Your task to perform on an android device: Open Amazon Image 0: 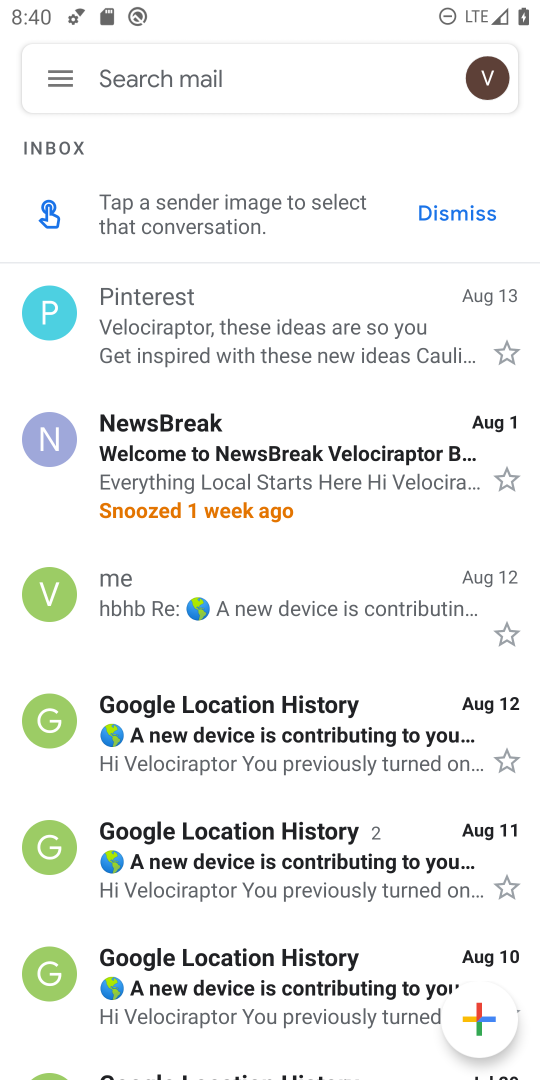
Step 0: press home button
Your task to perform on an android device: Open Amazon Image 1: 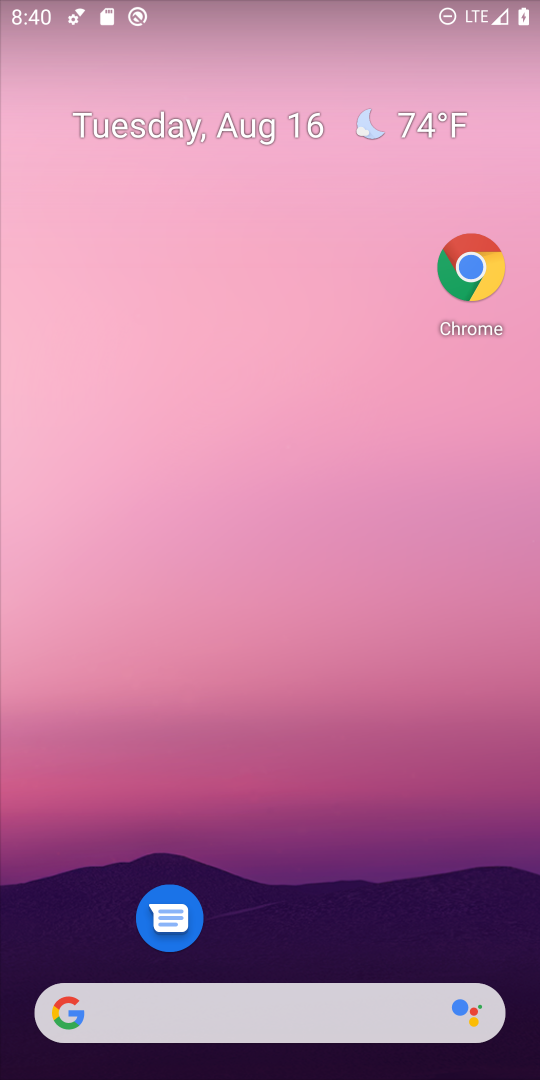
Step 1: drag from (412, 895) to (292, 182)
Your task to perform on an android device: Open Amazon Image 2: 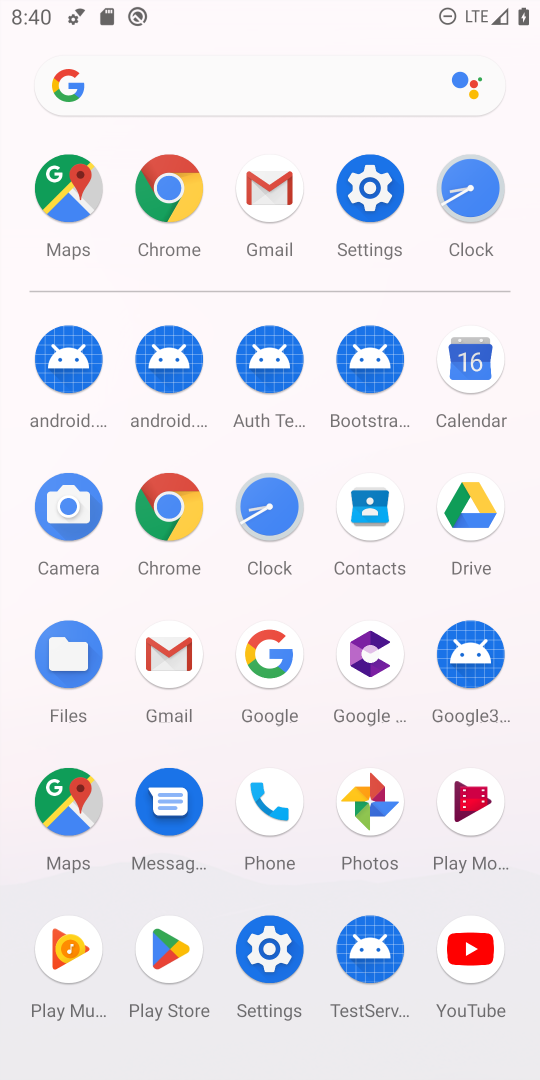
Step 2: click (161, 516)
Your task to perform on an android device: Open Amazon Image 3: 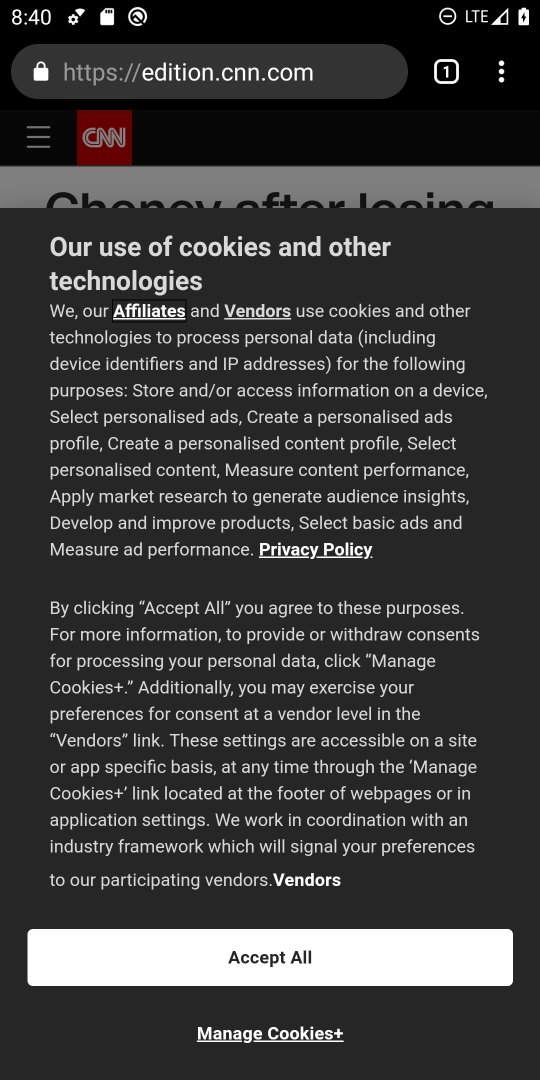
Step 3: click (291, 70)
Your task to perform on an android device: Open Amazon Image 4: 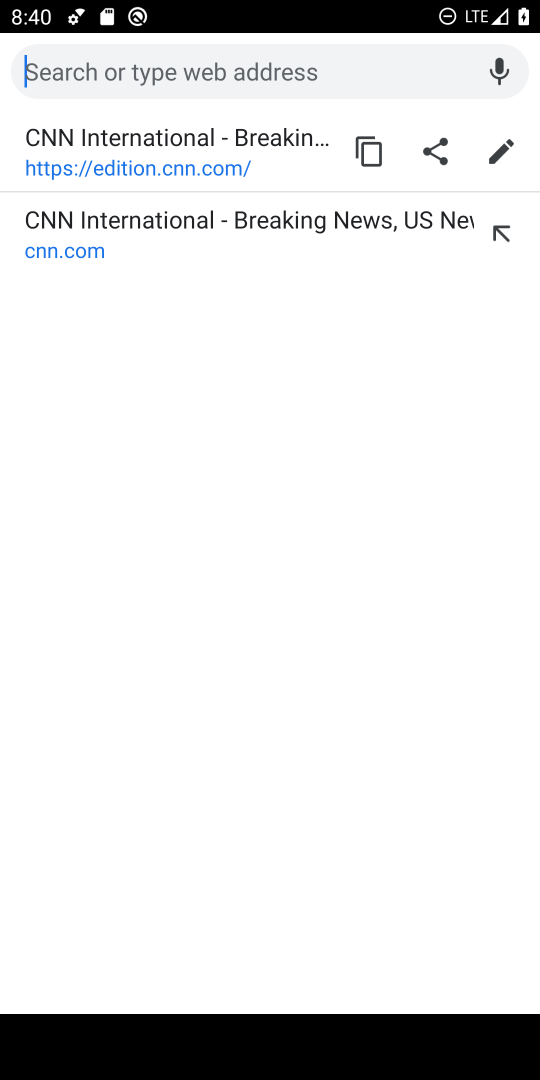
Step 4: type "amazon"
Your task to perform on an android device: Open Amazon Image 5: 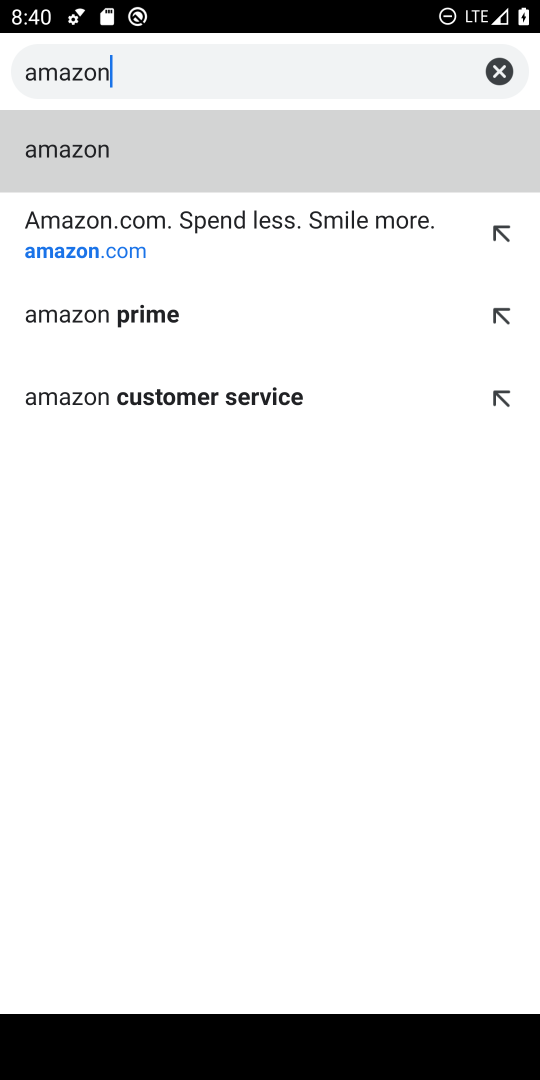
Step 5: click (389, 251)
Your task to perform on an android device: Open Amazon Image 6: 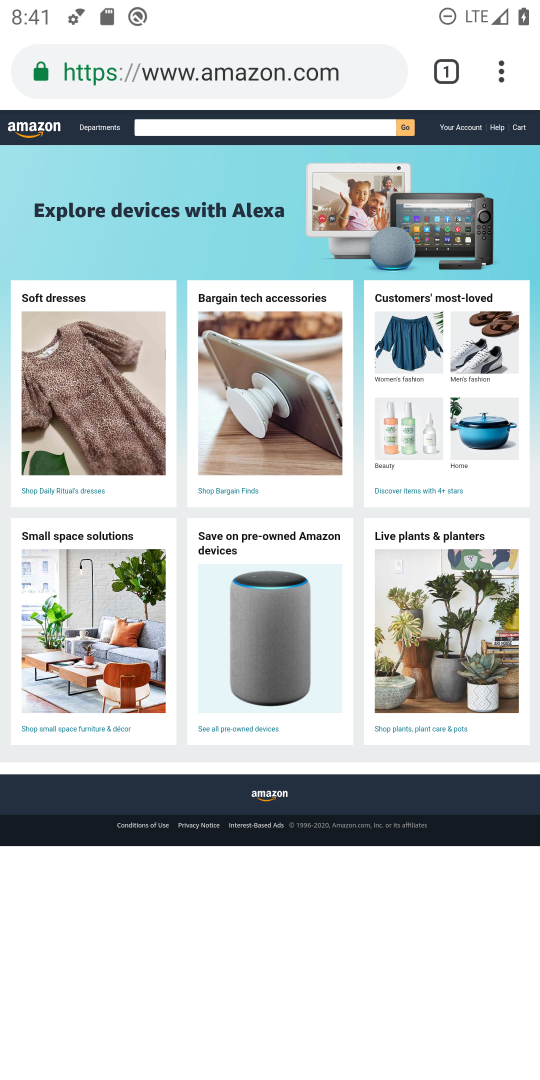
Step 6: task complete